Your task to perform on an android device: Search for the best vacuum on Amazon. Image 0: 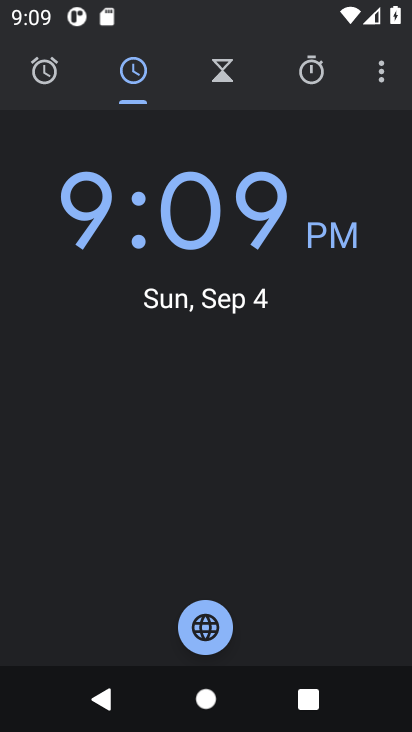
Step 0: press home button
Your task to perform on an android device: Search for the best vacuum on Amazon. Image 1: 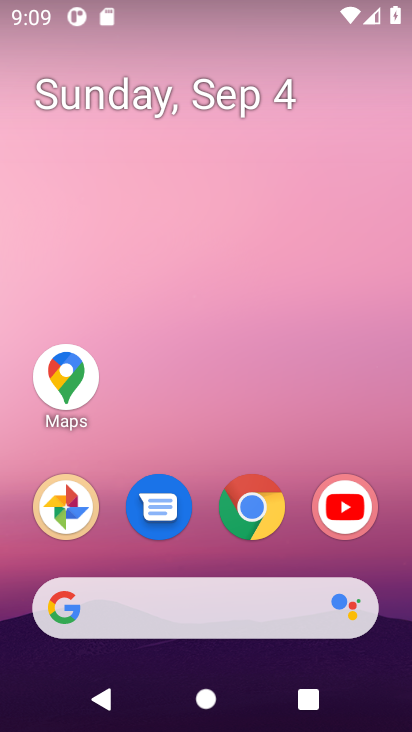
Step 1: click (251, 501)
Your task to perform on an android device: Search for the best vacuum on Amazon. Image 2: 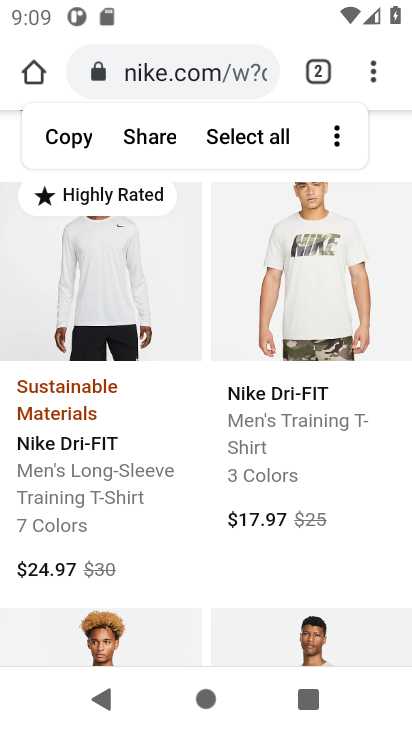
Step 2: click (171, 55)
Your task to perform on an android device: Search for the best vacuum on Amazon. Image 3: 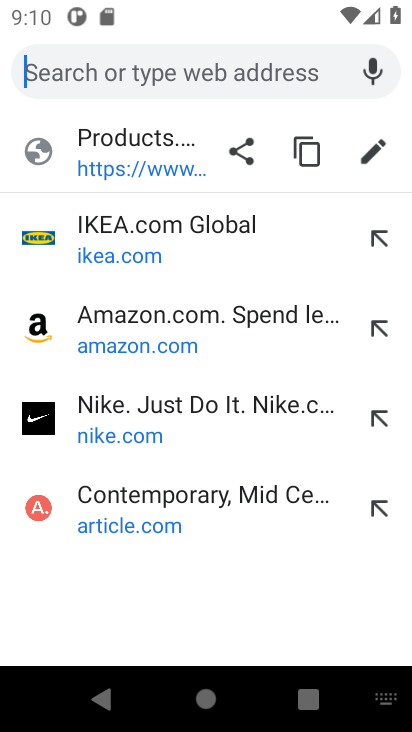
Step 3: type "Amazon"
Your task to perform on an android device: Search for the best vacuum on Amazon. Image 4: 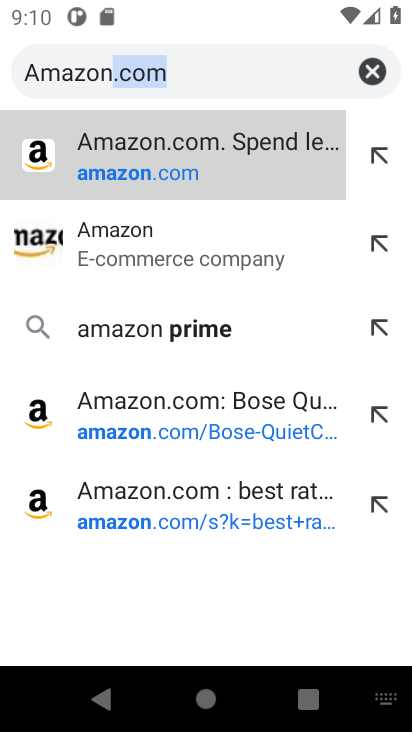
Step 4: click (128, 143)
Your task to perform on an android device: Search for the best vacuum on Amazon. Image 5: 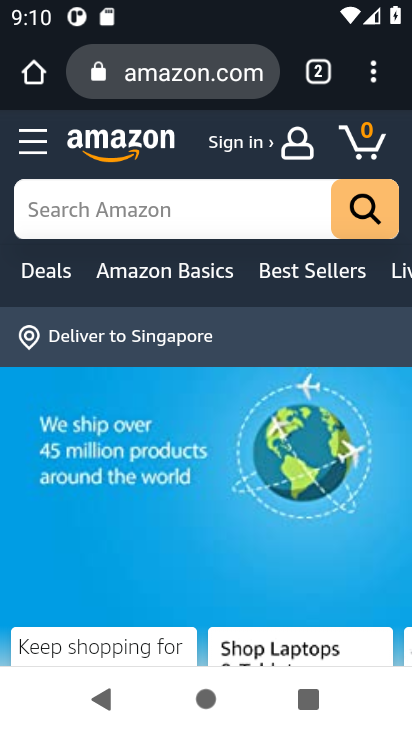
Step 5: click (74, 215)
Your task to perform on an android device: Search for the best vacuum on Amazon. Image 6: 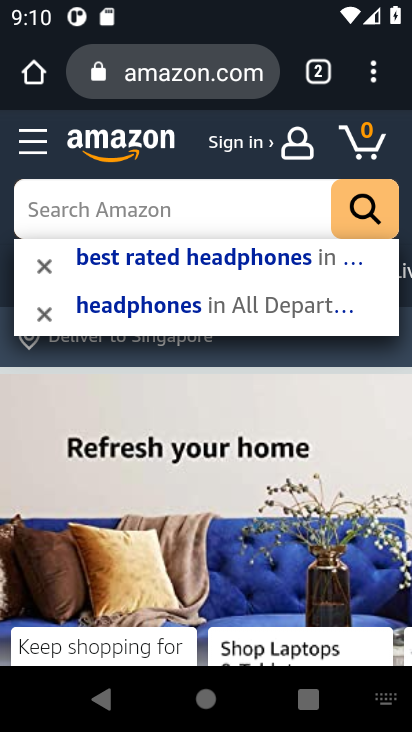
Step 6: type " best vacuum"
Your task to perform on an android device: Search for the best vacuum on Amazon. Image 7: 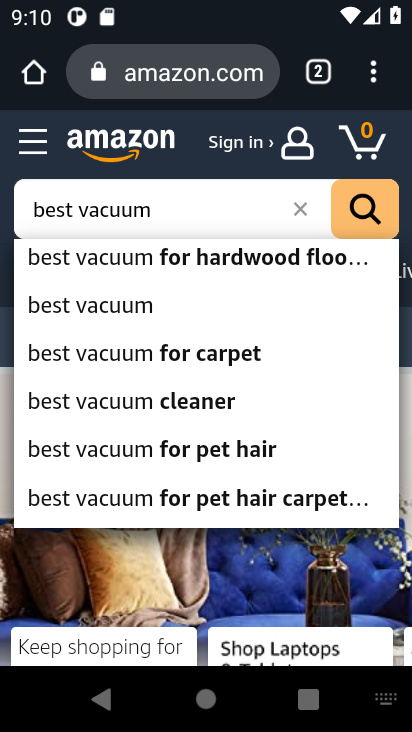
Step 7: click (99, 295)
Your task to perform on an android device: Search for the best vacuum on Amazon. Image 8: 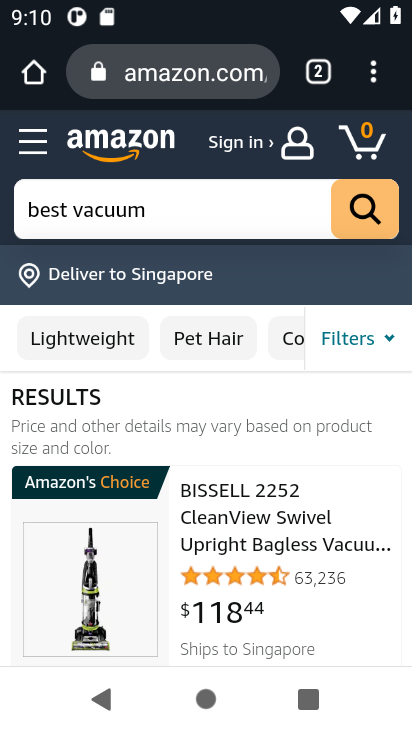
Step 8: drag from (163, 517) to (152, 203)
Your task to perform on an android device: Search for the best vacuum on Amazon. Image 9: 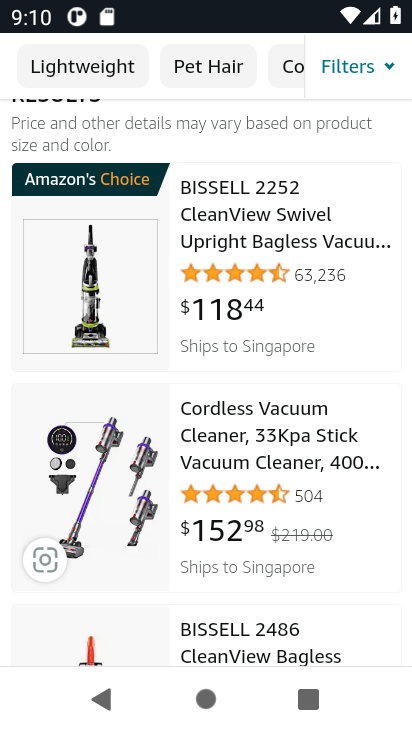
Step 9: drag from (167, 599) to (162, 286)
Your task to perform on an android device: Search for the best vacuum on Amazon. Image 10: 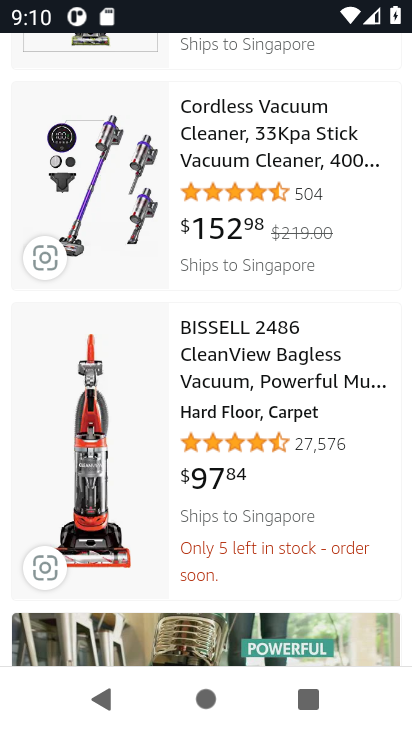
Step 10: drag from (169, 606) to (171, 286)
Your task to perform on an android device: Search for the best vacuum on Amazon. Image 11: 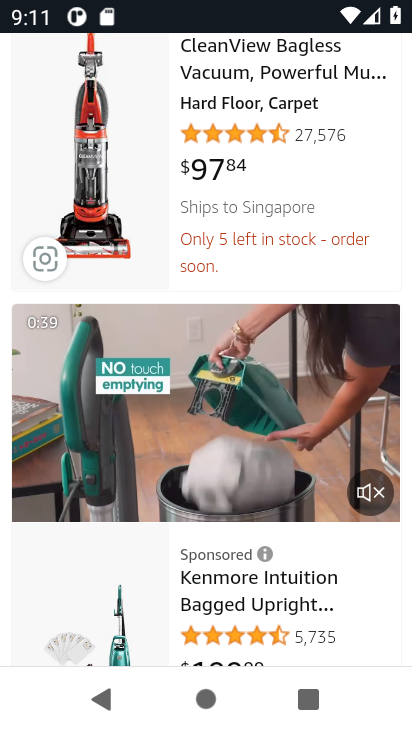
Step 11: drag from (163, 605) to (179, 289)
Your task to perform on an android device: Search for the best vacuum on Amazon. Image 12: 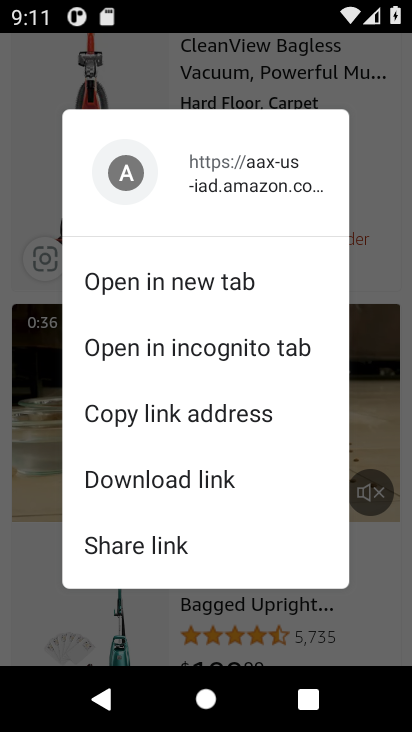
Step 12: click (350, 625)
Your task to perform on an android device: Search for the best vacuum on Amazon. Image 13: 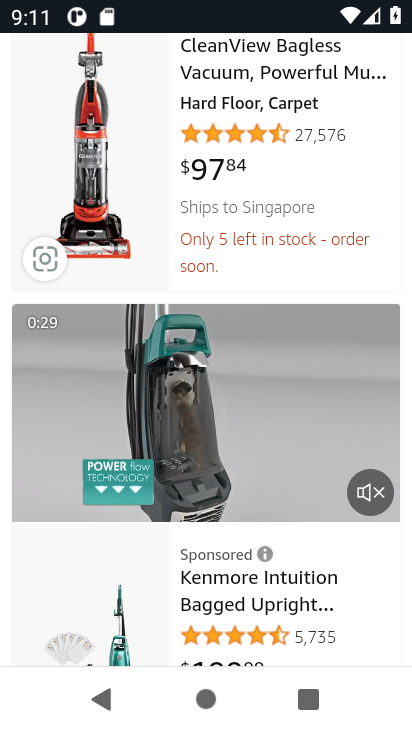
Step 13: task complete